Your task to perform on an android device: Search for Italian restaurants on Maps Image 0: 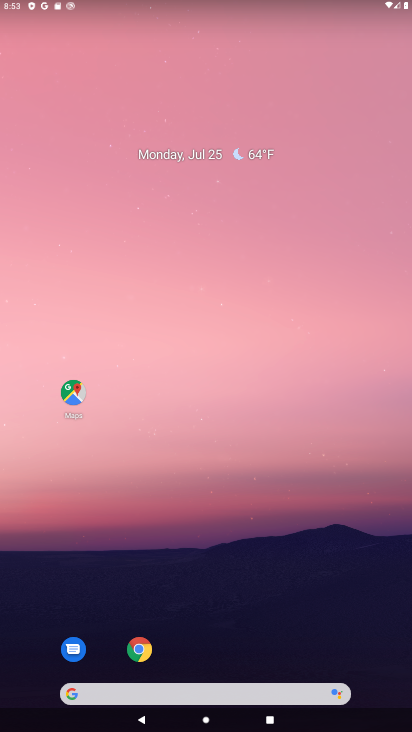
Step 0: click (64, 398)
Your task to perform on an android device: Search for Italian restaurants on Maps Image 1: 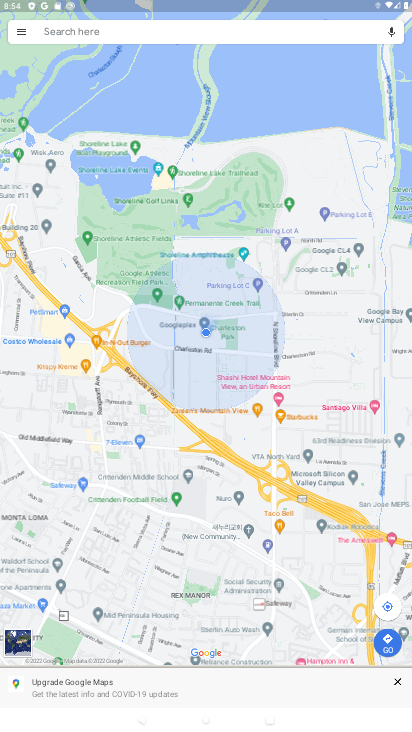
Step 1: click (178, 36)
Your task to perform on an android device: Search for Italian restaurants on Maps Image 2: 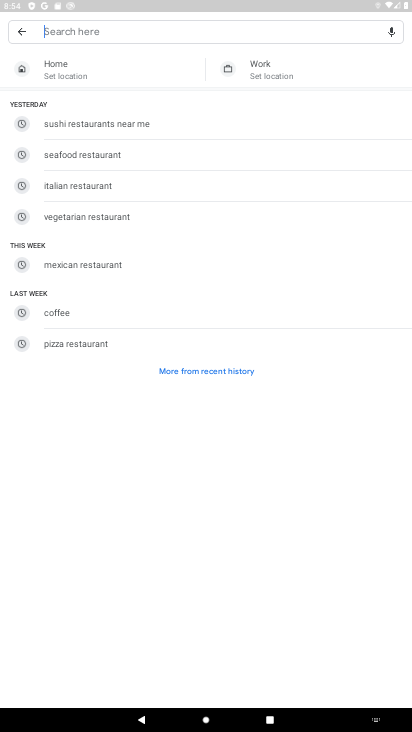
Step 2: click (156, 186)
Your task to perform on an android device: Search for Italian restaurants on Maps Image 3: 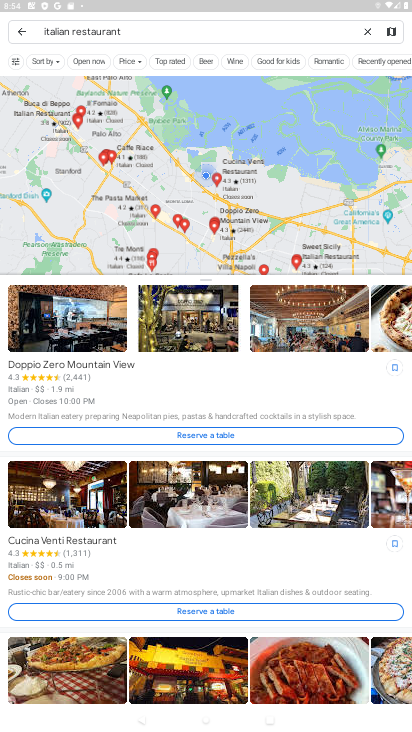
Step 3: task complete